Your task to perform on an android device: Open ESPN.com Image 0: 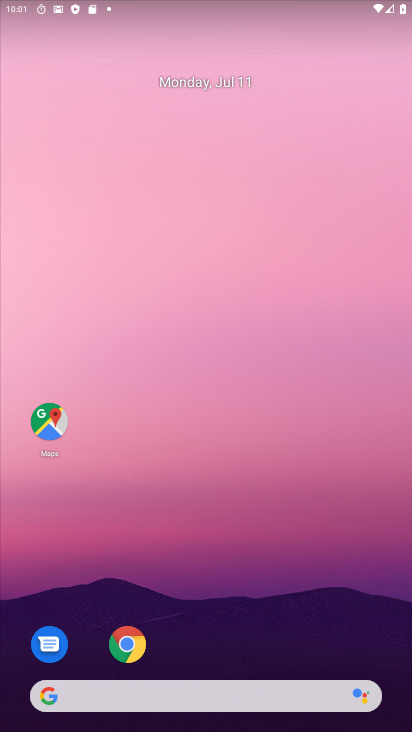
Step 0: drag from (222, 655) to (224, 64)
Your task to perform on an android device: Open ESPN.com Image 1: 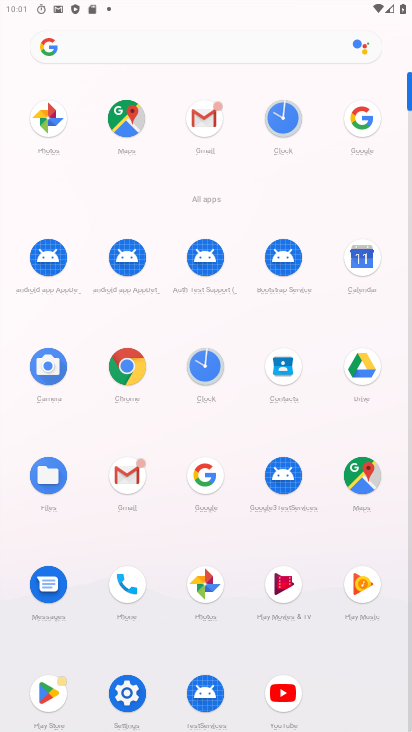
Step 1: click (203, 472)
Your task to perform on an android device: Open ESPN.com Image 2: 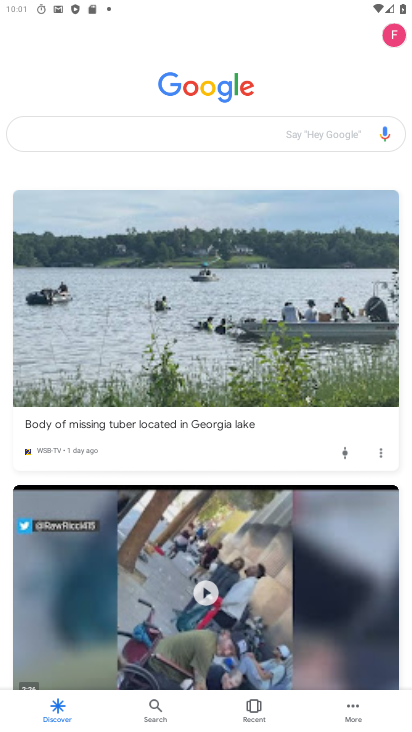
Step 2: click (180, 125)
Your task to perform on an android device: Open ESPN.com Image 3: 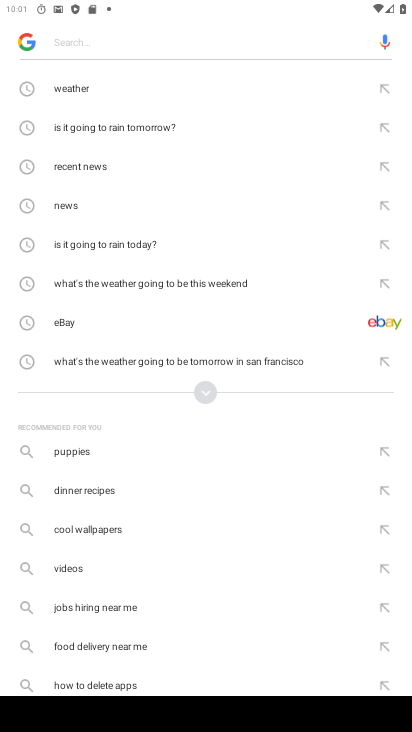
Step 3: type "espn.com"
Your task to perform on an android device: Open ESPN.com Image 4: 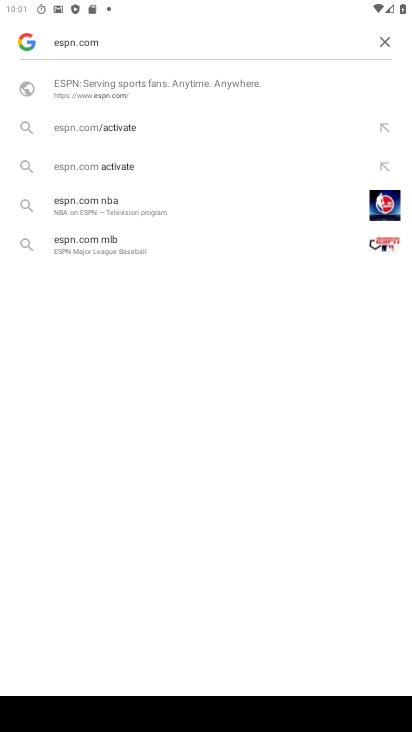
Step 4: click (130, 81)
Your task to perform on an android device: Open ESPN.com Image 5: 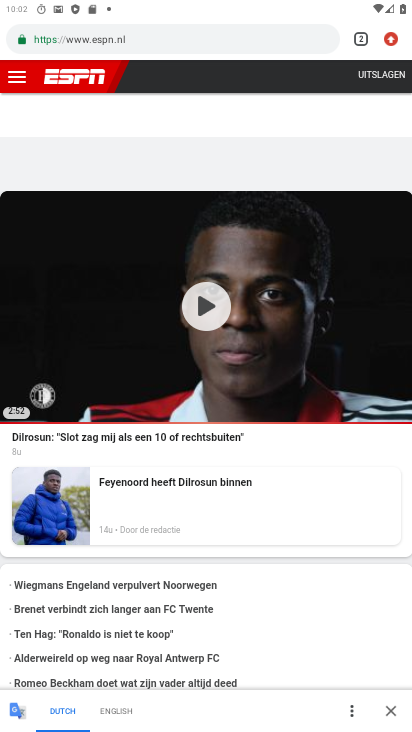
Step 5: task complete